Your task to perform on an android device: change your default location settings in chrome Image 0: 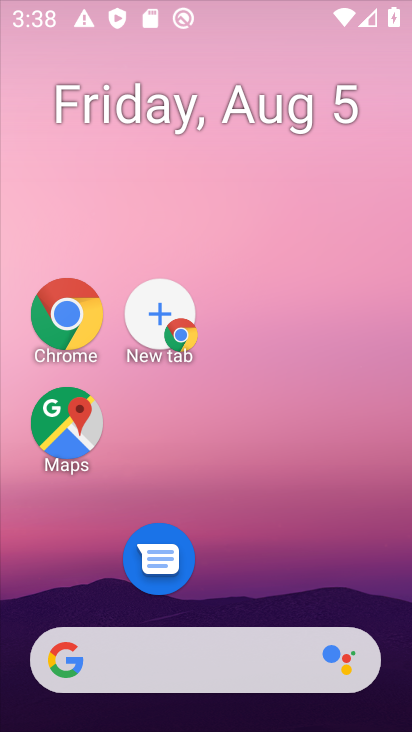
Step 0: drag from (245, 596) to (171, 222)
Your task to perform on an android device: change your default location settings in chrome Image 1: 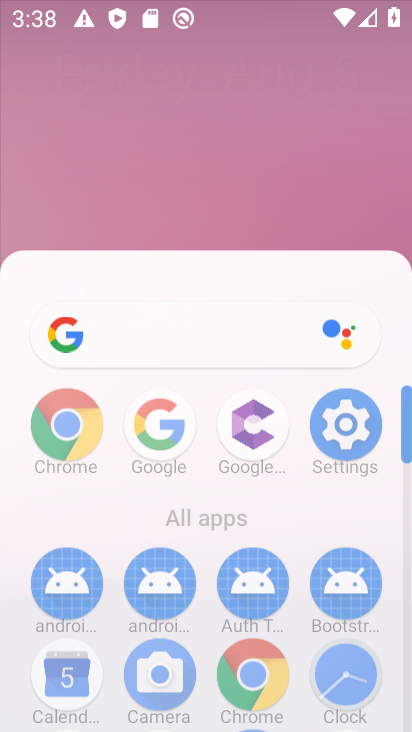
Step 1: drag from (242, 624) to (150, 150)
Your task to perform on an android device: change your default location settings in chrome Image 2: 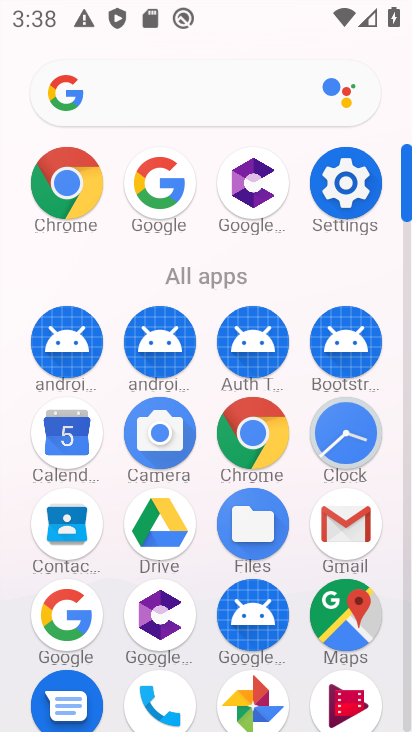
Step 2: drag from (233, 539) to (209, 99)
Your task to perform on an android device: change your default location settings in chrome Image 3: 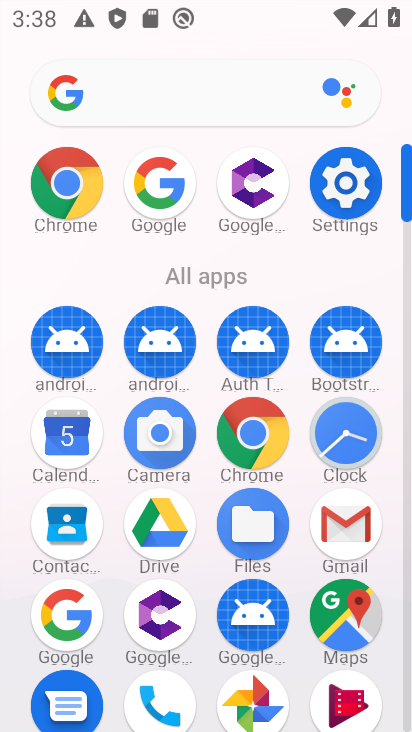
Step 3: click (243, 438)
Your task to perform on an android device: change your default location settings in chrome Image 4: 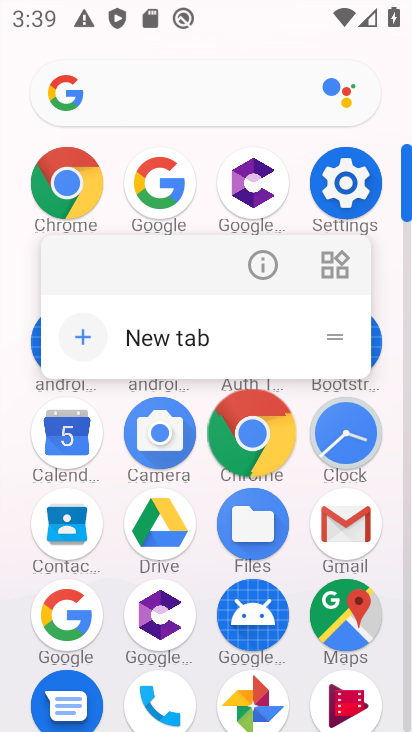
Step 4: click (248, 437)
Your task to perform on an android device: change your default location settings in chrome Image 5: 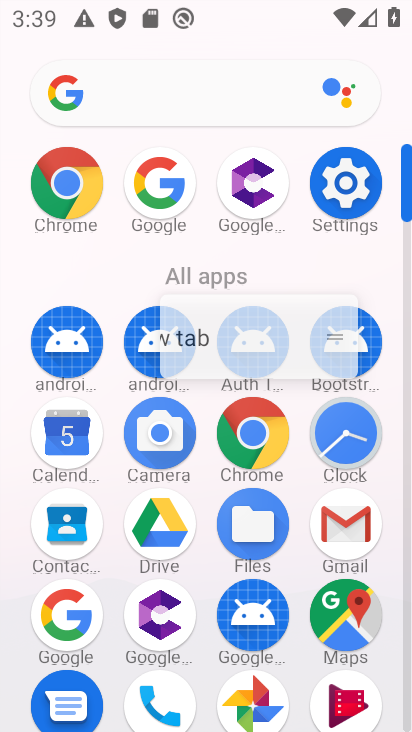
Step 5: click (249, 438)
Your task to perform on an android device: change your default location settings in chrome Image 6: 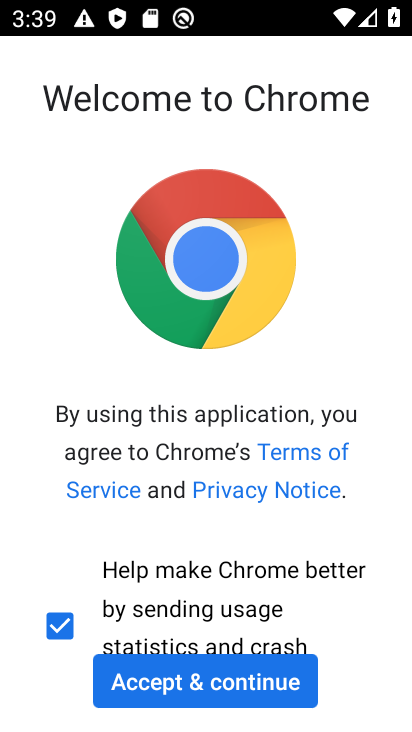
Step 6: click (246, 680)
Your task to perform on an android device: change your default location settings in chrome Image 7: 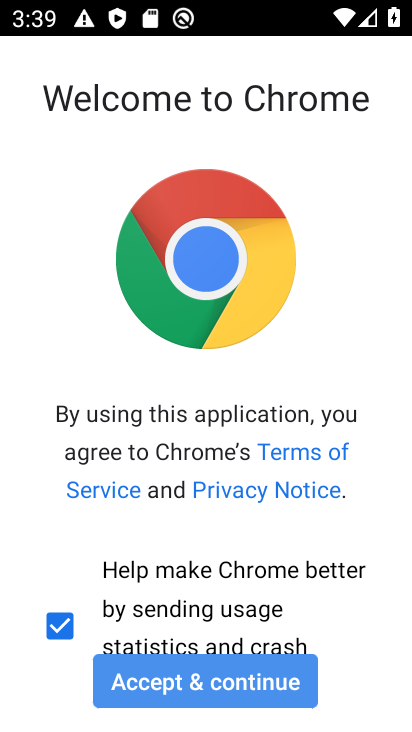
Step 7: click (246, 680)
Your task to perform on an android device: change your default location settings in chrome Image 8: 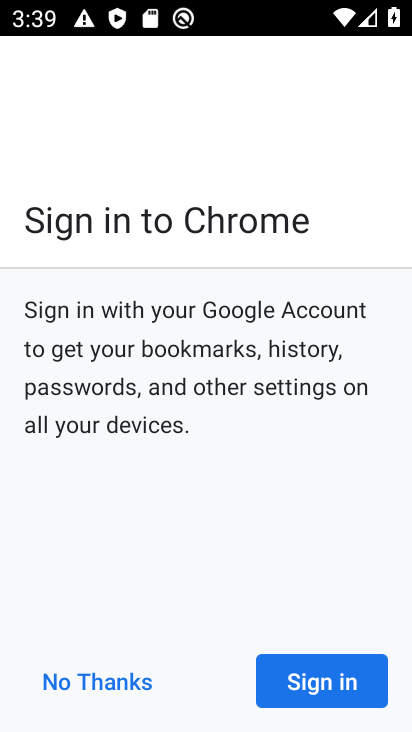
Step 8: click (246, 680)
Your task to perform on an android device: change your default location settings in chrome Image 9: 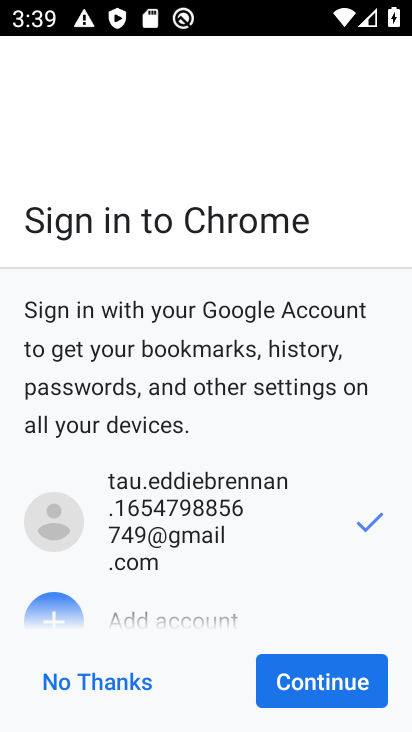
Step 9: click (140, 683)
Your task to perform on an android device: change your default location settings in chrome Image 10: 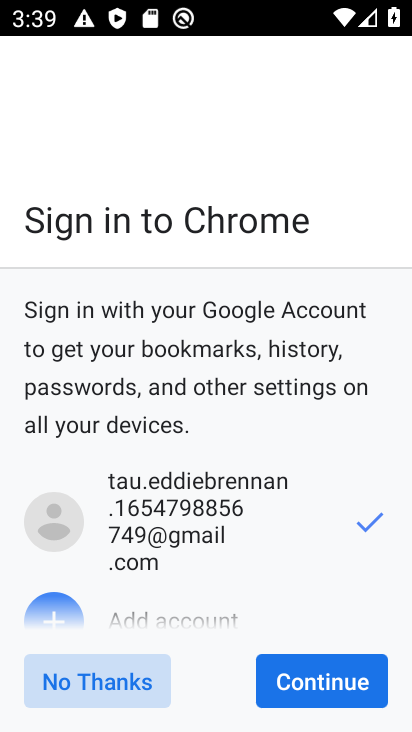
Step 10: click (140, 683)
Your task to perform on an android device: change your default location settings in chrome Image 11: 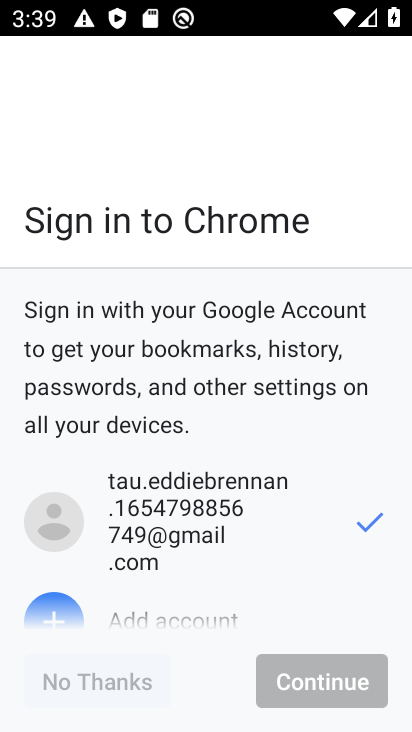
Step 11: click (140, 683)
Your task to perform on an android device: change your default location settings in chrome Image 12: 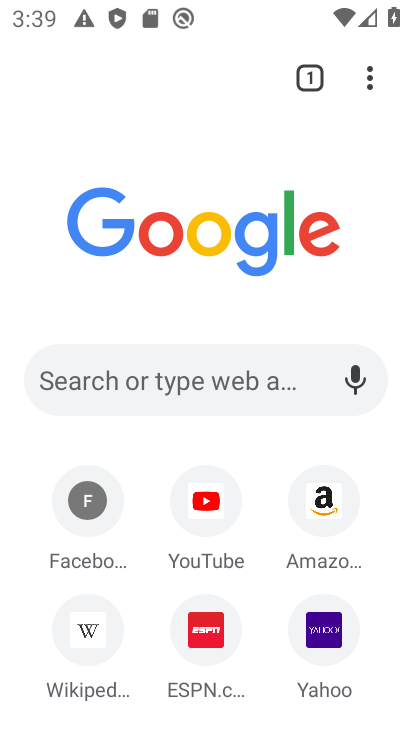
Step 12: click (183, 592)
Your task to perform on an android device: change your default location settings in chrome Image 13: 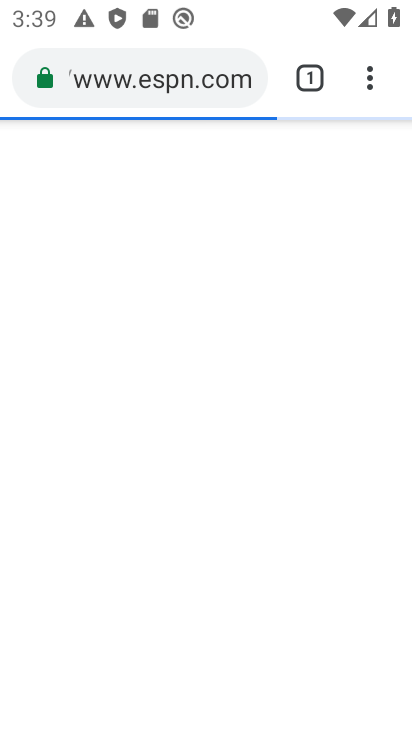
Step 13: drag from (365, 75) to (82, 616)
Your task to perform on an android device: change your default location settings in chrome Image 14: 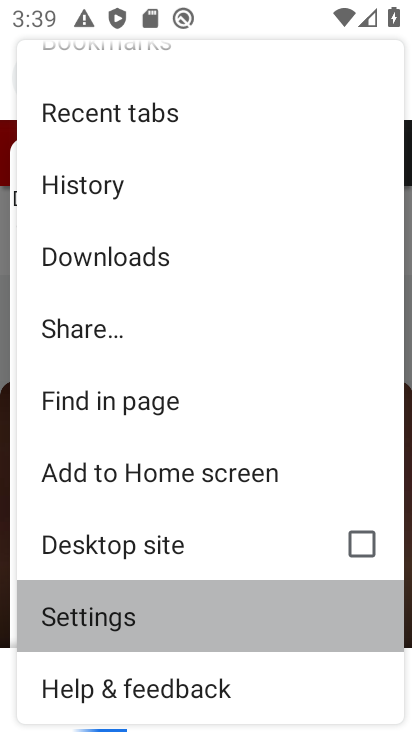
Step 14: click (83, 617)
Your task to perform on an android device: change your default location settings in chrome Image 15: 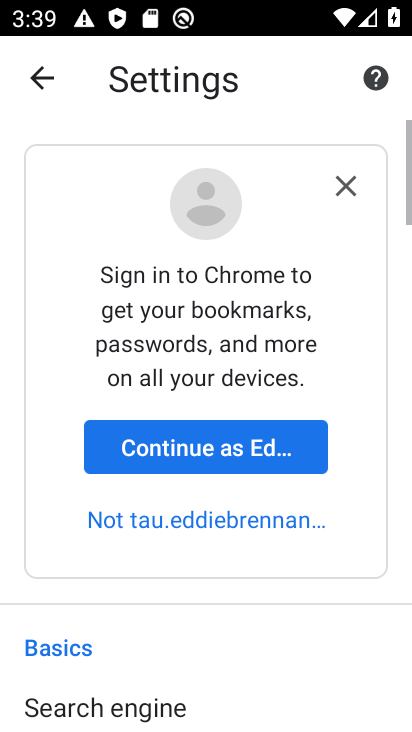
Step 15: drag from (176, 592) to (178, 198)
Your task to perform on an android device: change your default location settings in chrome Image 16: 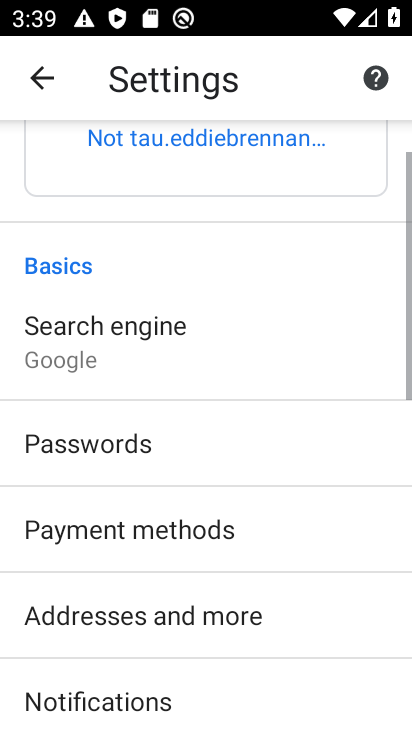
Step 16: drag from (177, 557) to (163, 260)
Your task to perform on an android device: change your default location settings in chrome Image 17: 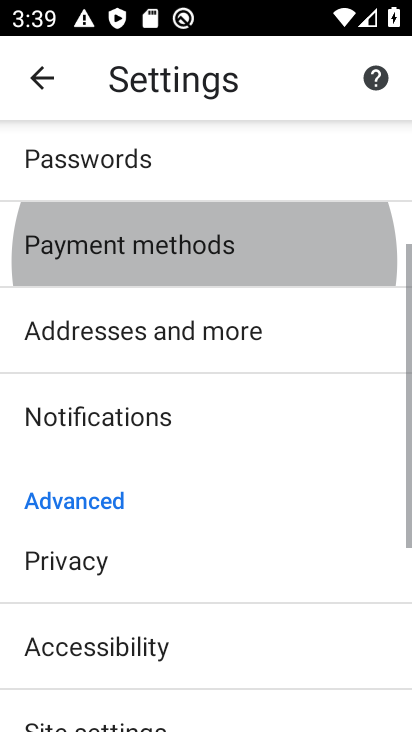
Step 17: drag from (164, 578) to (161, 318)
Your task to perform on an android device: change your default location settings in chrome Image 18: 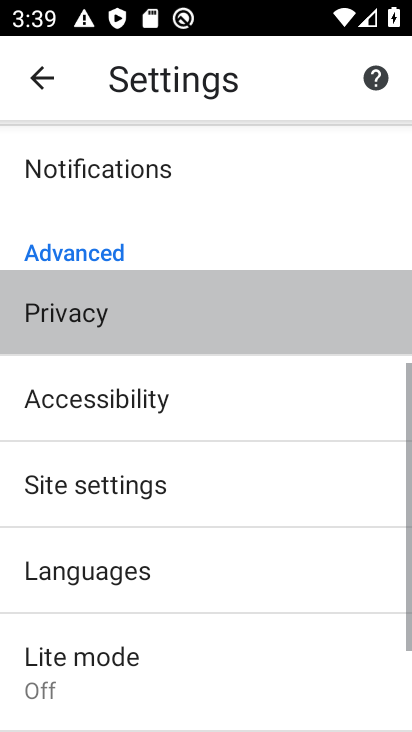
Step 18: drag from (239, 534) to (239, 323)
Your task to perform on an android device: change your default location settings in chrome Image 19: 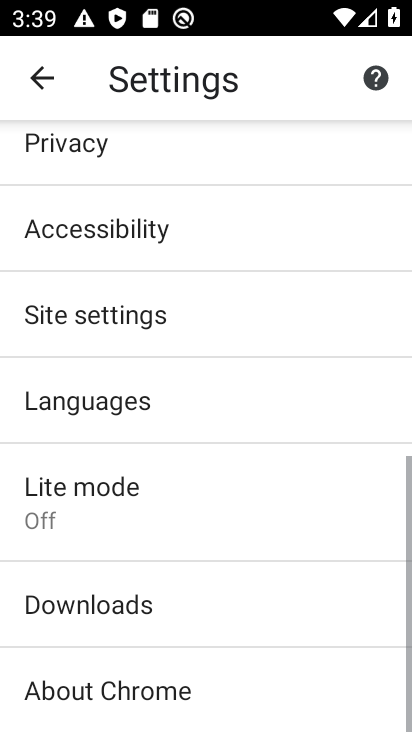
Step 19: drag from (204, 455) to (162, 310)
Your task to perform on an android device: change your default location settings in chrome Image 20: 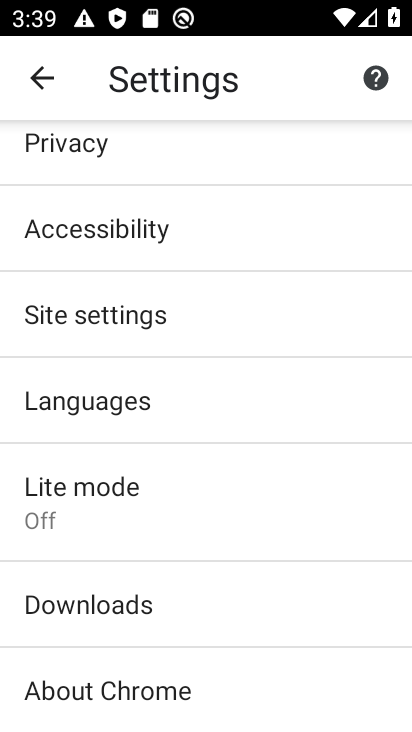
Step 20: click (181, 414)
Your task to perform on an android device: change your default location settings in chrome Image 21: 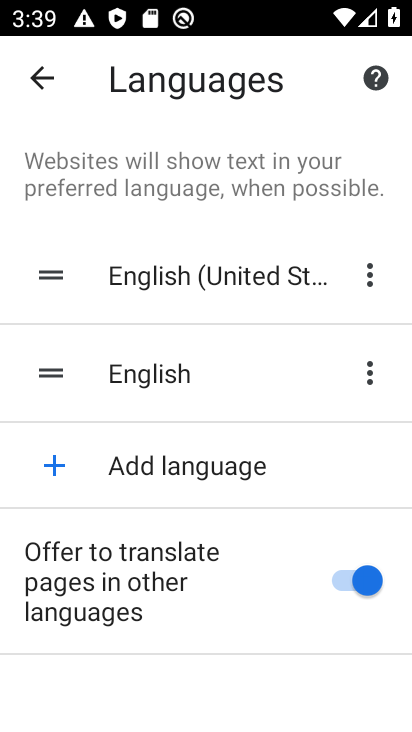
Step 21: click (366, 586)
Your task to perform on an android device: change your default location settings in chrome Image 22: 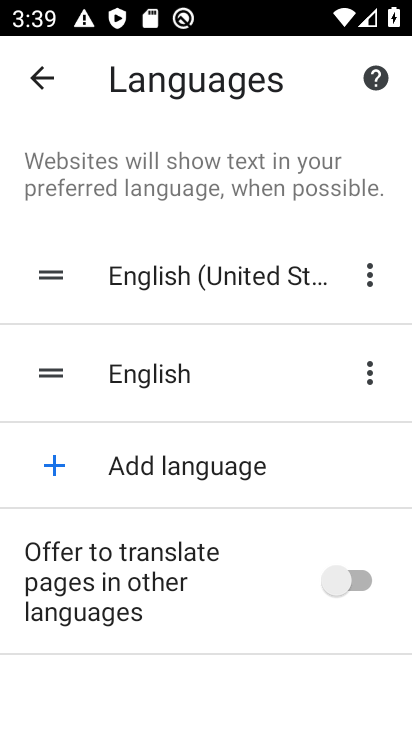
Step 22: task complete